Your task to perform on an android device: Open Android settings Image 0: 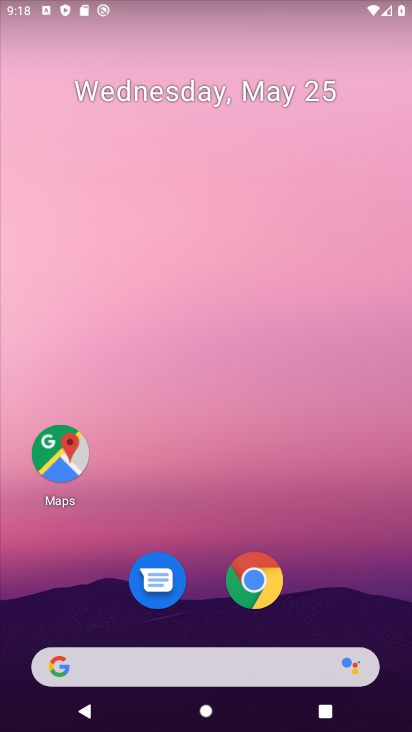
Step 0: press home button
Your task to perform on an android device: Open Android settings Image 1: 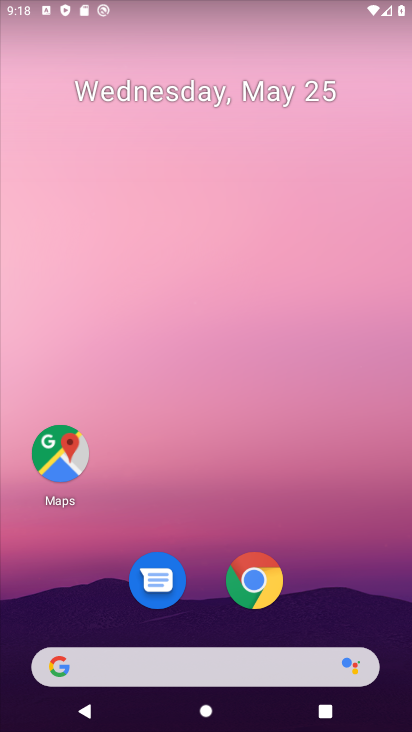
Step 1: drag from (28, 541) to (262, 52)
Your task to perform on an android device: Open Android settings Image 2: 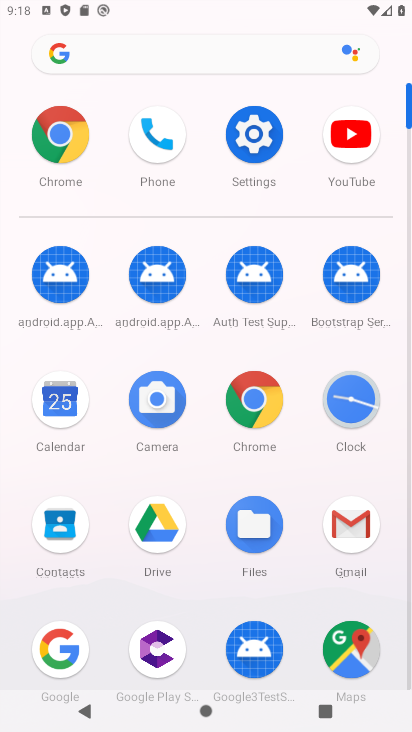
Step 2: click (270, 140)
Your task to perform on an android device: Open Android settings Image 3: 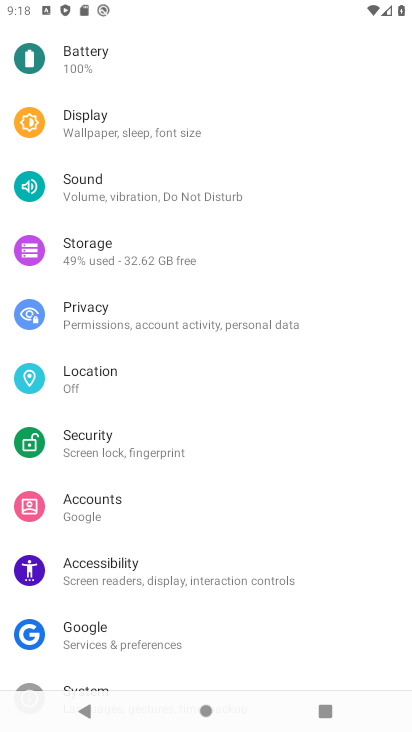
Step 3: task complete